Your task to perform on an android device: Open internet settings Image 0: 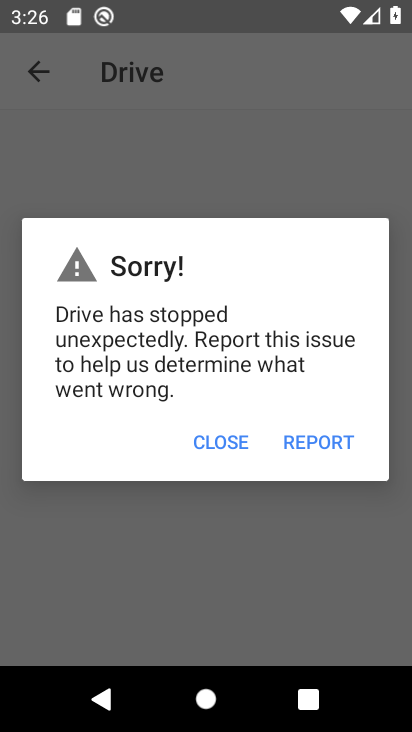
Step 0: press home button
Your task to perform on an android device: Open internet settings Image 1: 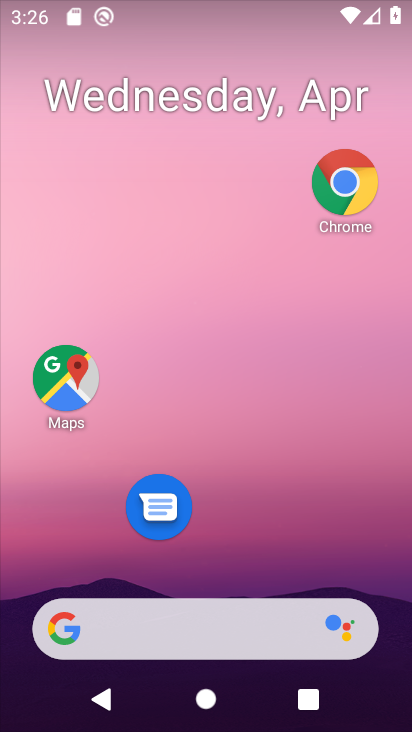
Step 1: drag from (216, 524) to (199, 10)
Your task to perform on an android device: Open internet settings Image 2: 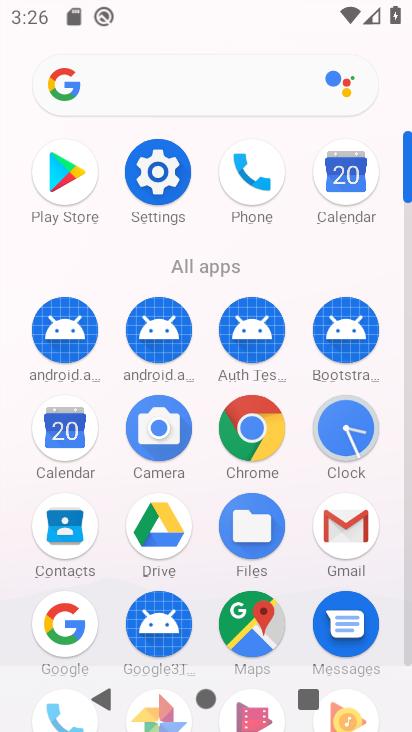
Step 2: click (170, 178)
Your task to perform on an android device: Open internet settings Image 3: 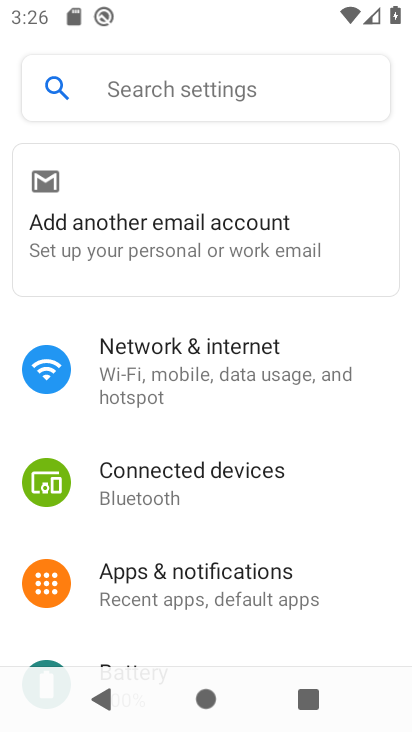
Step 3: click (182, 344)
Your task to perform on an android device: Open internet settings Image 4: 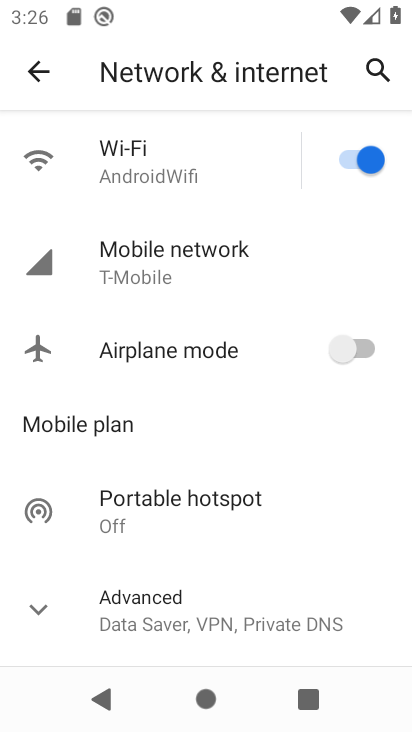
Step 4: click (164, 267)
Your task to perform on an android device: Open internet settings Image 5: 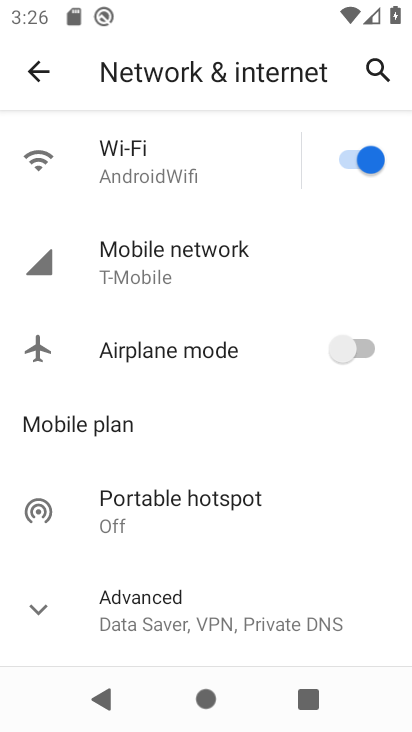
Step 5: task complete